Your task to perform on an android device: turn notification dots off Image 0: 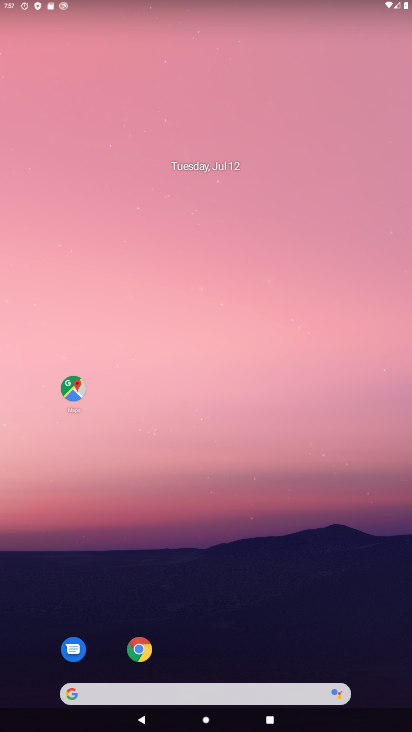
Step 0: drag from (279, 662) to (249, 176)
Your task to perform on an android device: turn notification dots off Image 1: 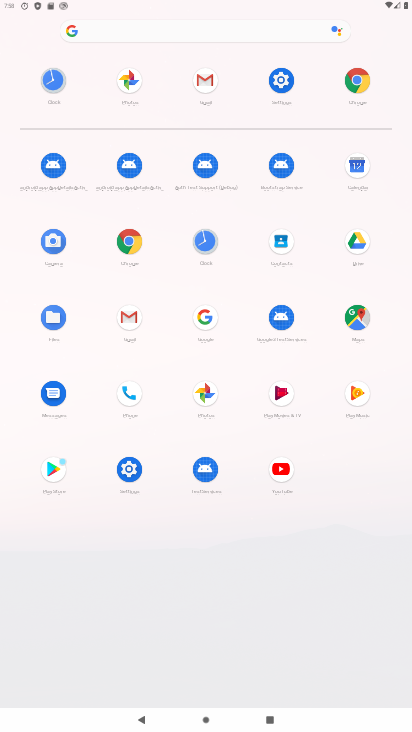
Step 1: click (282, 81)
Your task to perform on an android device: turn notification dots off Image 2: 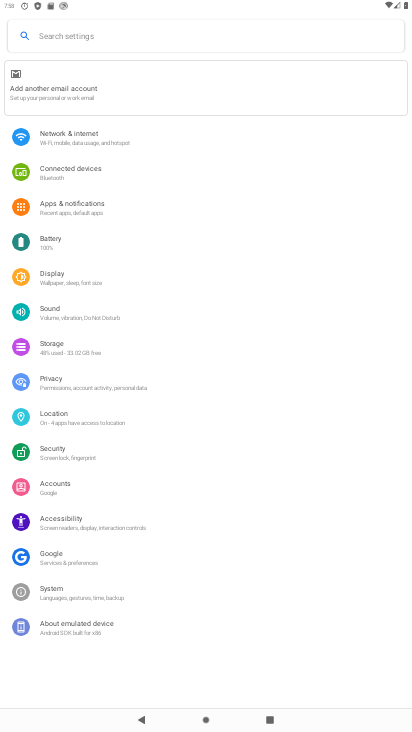
Step 2: click (60, 200)
Your task to perform on an android device: turn notification dots off Image 3: 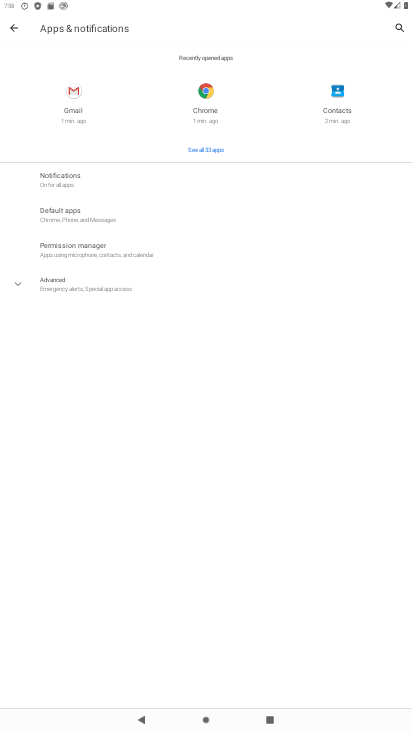
Step 3: click (67, 177)
Your task to perform on an android device: turn notification dots off Image 4: 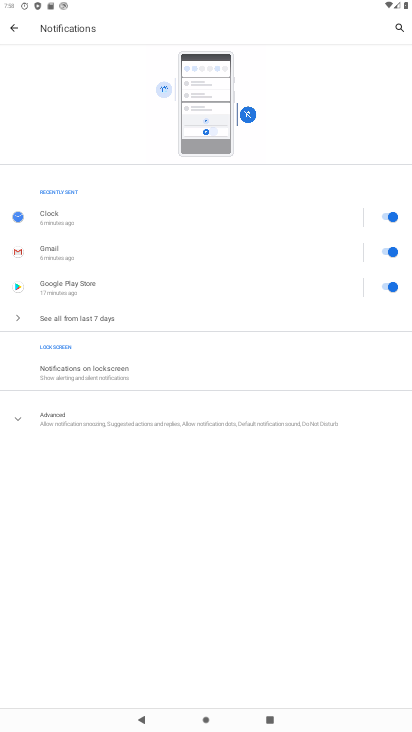
Step 4: click (85, 426)
Your task to perform on an android device: turn notification dots off Image 5: 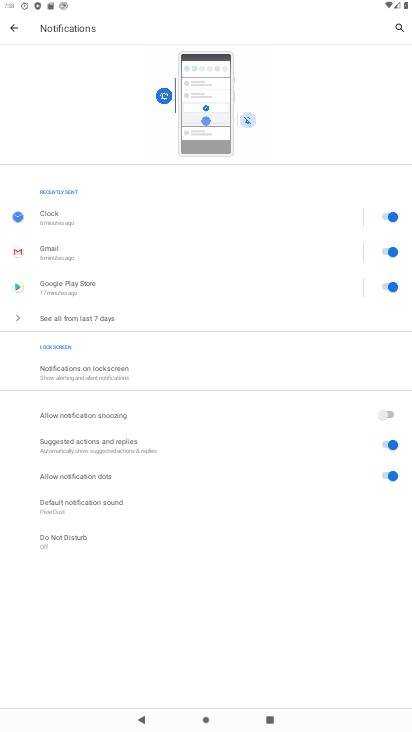
Step 5: click (390, 475)
Your task to perform on an android device: turn notification dots off Image 6: 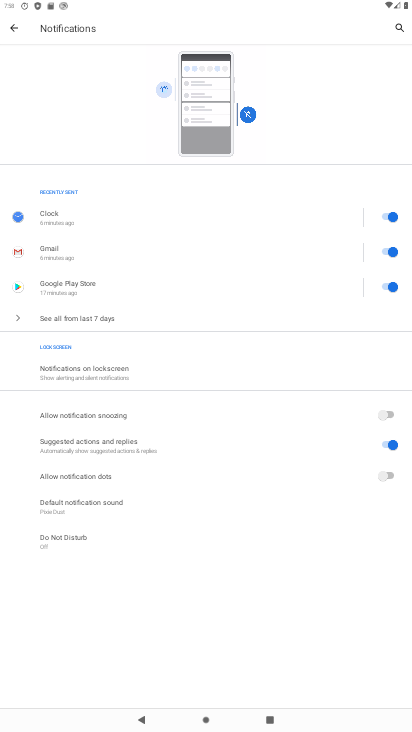
Step 6: task complete